Your task to perform on an android device: What's the weather going to be this weekend? Image 0: 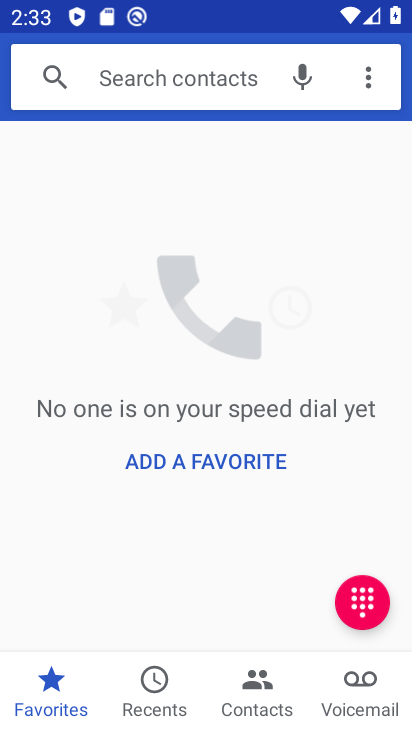
Step 0: press back button
Your task to perform on an android device: What's the weather going to be this weekend? Image 1: 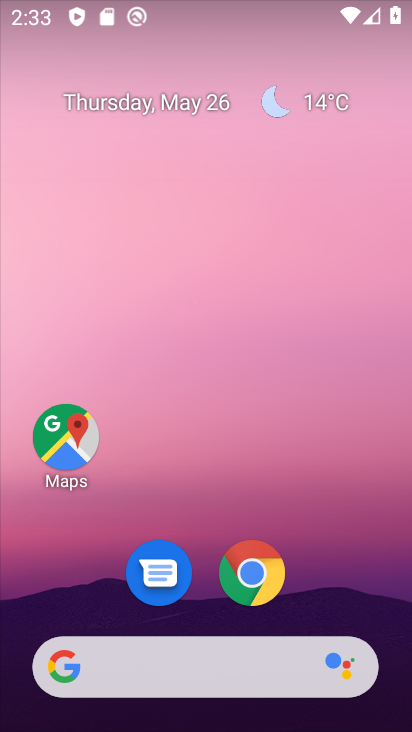
Step 1: drag from (347, 587) to (226, 69)
Your task to perform on an android device: What's the weather going to be this weekend? Image 2: 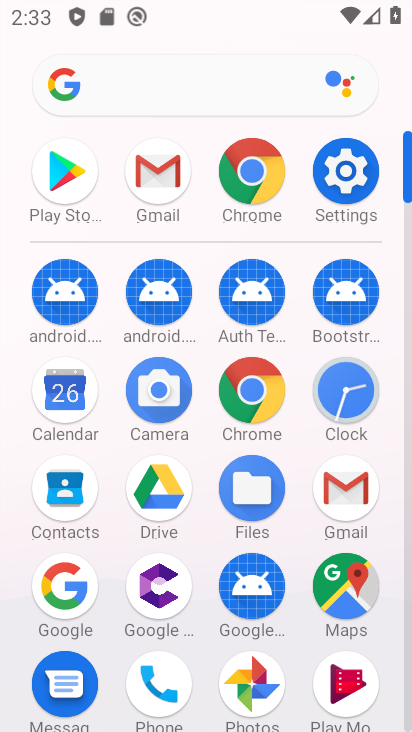
Step 2: drag from (12, 543) to (12, 208)
Your task to perform on an android device: What's the weather going to be this weekend? Image 3: 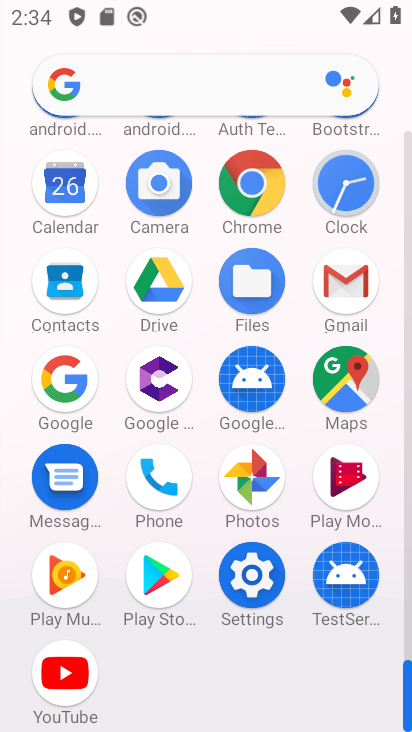
Step 3: click (246, 181)
Your task to perform on an android device: What's the weather going to be this weekend? Image 4: 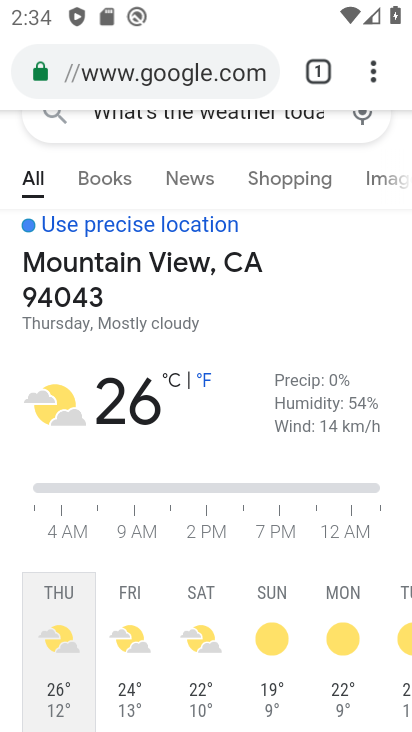
Step 4: click (182, 83)
Your task to perform on an android device: What's the weather going to be this weekend? Image 5: 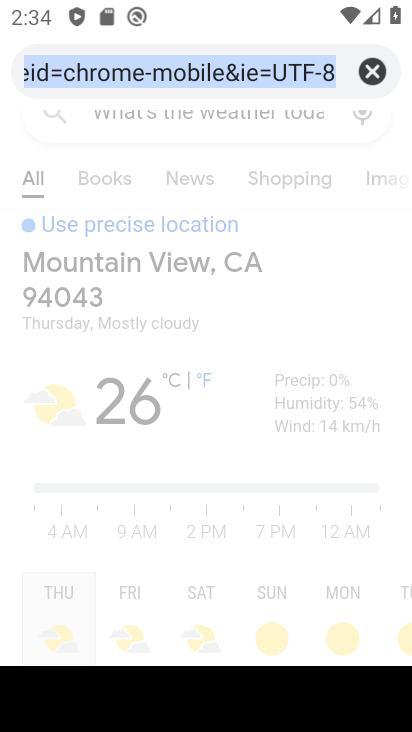
Step 5: click (383, 62)
Your task to perform on an android device: What's the weather going to be this weekend? Image 6: 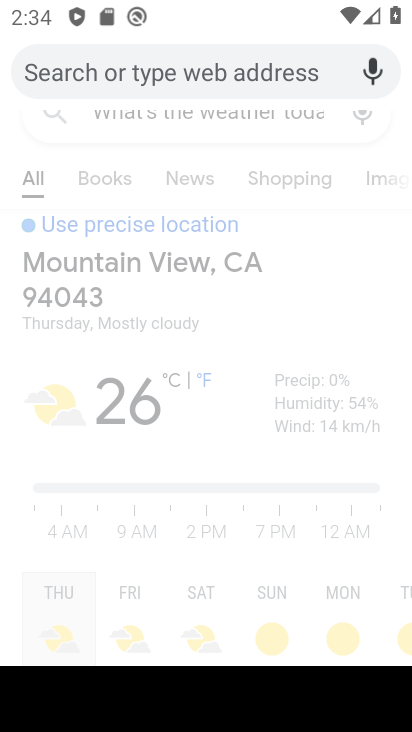
Step 6: type "What's the weather going to be this weekend?"
Your task to perform on an android device: What's the weather going to be this weekend? Image 7: 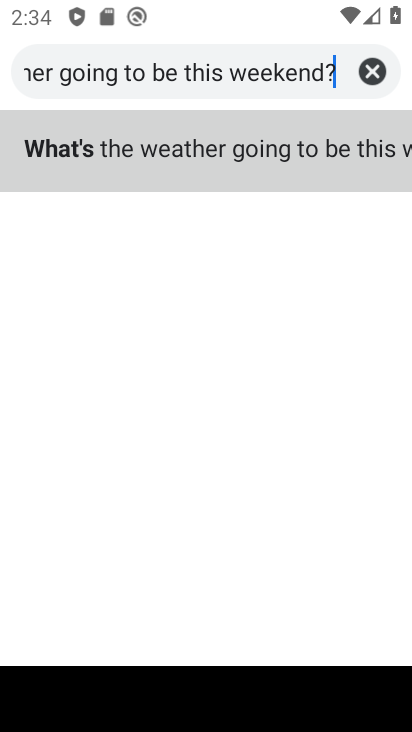
Step 7: type ""
Your task to perform on an android device: What's the weather going to be this weekend? Image 8: 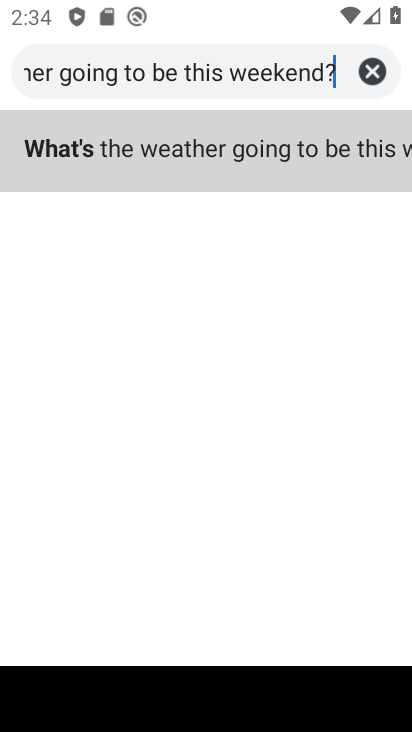
Step 8: click (134, 143)
Your task to perform on an android device: What's the weather going to be this weekend? Image 9: 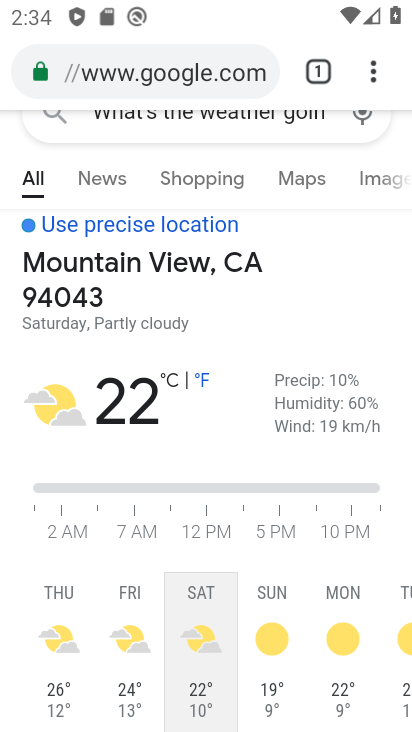
Step 9: task complete